Your task to perform on an android device: Go to privacy settings Image 0: 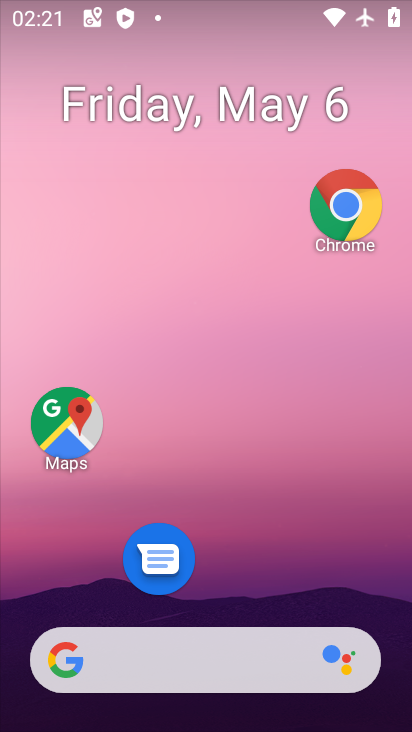
Step 0: drag from (153, 675) to (302, 119)
Your task to perform on an android device: Go to privacy settings Image 1: 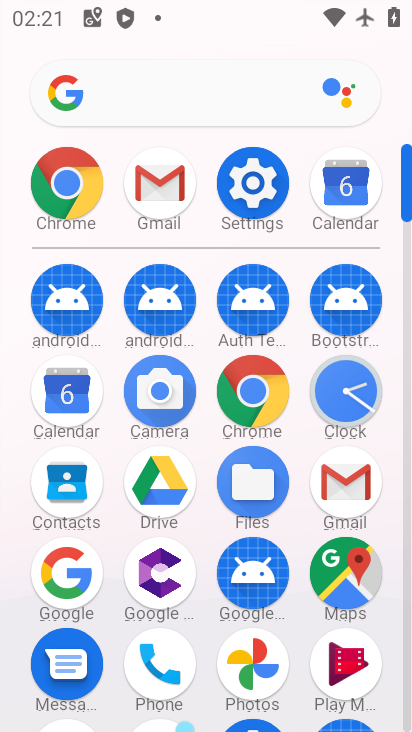
Step 1: click (264, 192)
Your task to perform on an android device: Go to privacy settings Image 2: 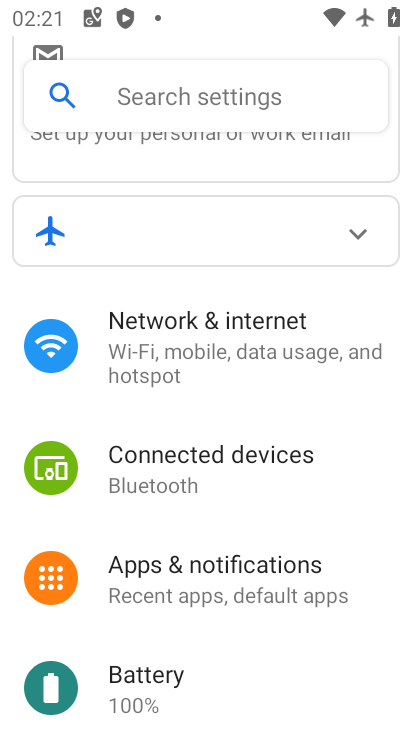
Step 2: drag from (183, 693) to (362, 162)
Your task to perform on an android device: Go to privacy settings Image 3: 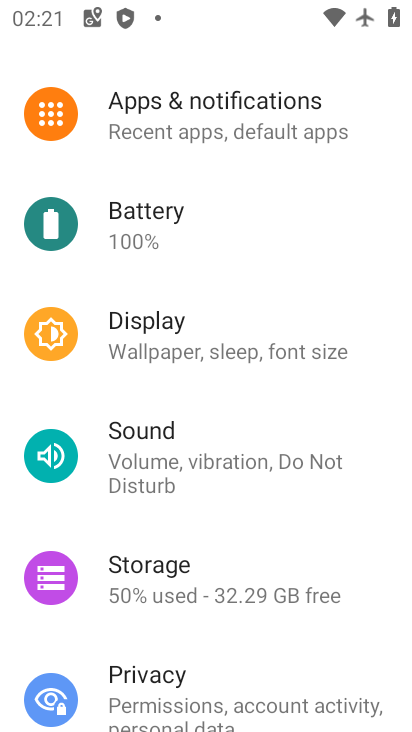
Step 3: click (158, 683)
Your task to perform on an android device: Go to privacy settings Image 4: 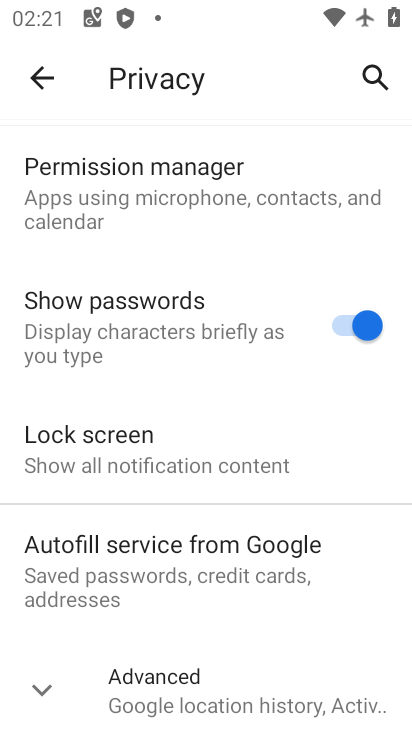
Step 4: task complete